Your task to perform on an android device: turn pop-ups off in chrome Image 0: 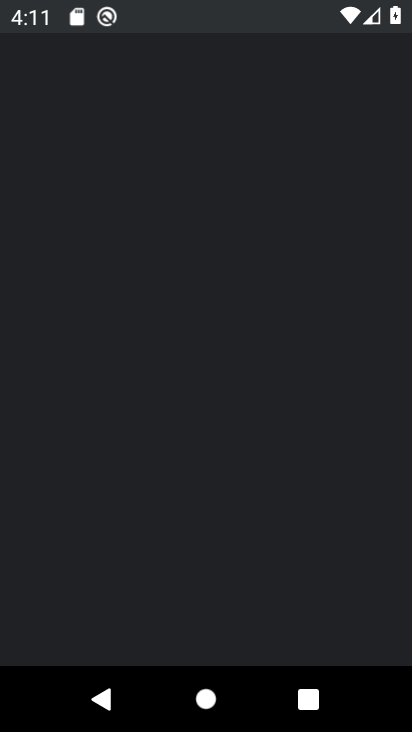
Step 0: press home button
Your task to perform on an android device: turn pop-ups off in chrome Image 1: 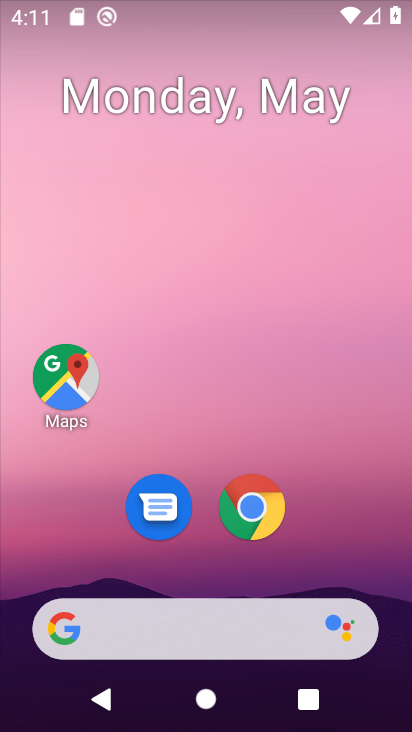
Step 1: drag from (397, 673) to (257, 19)
Your task to perform on an android device: turn pop-ups off in chrome Image 2: 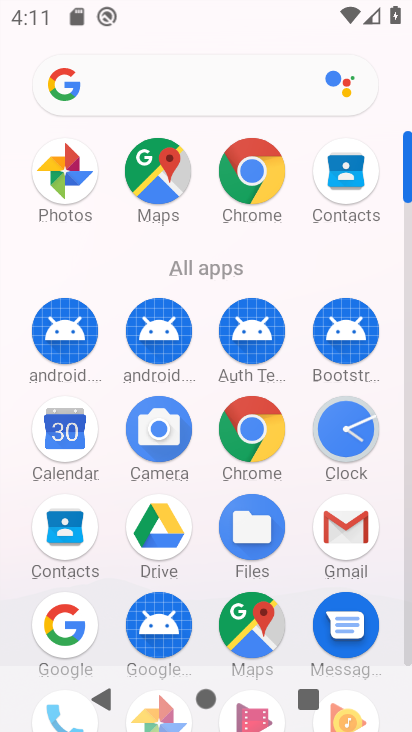
Step 2: click (254, 197)
Your task to perform on an android device: turn pop-ups off in chrome Image 3: 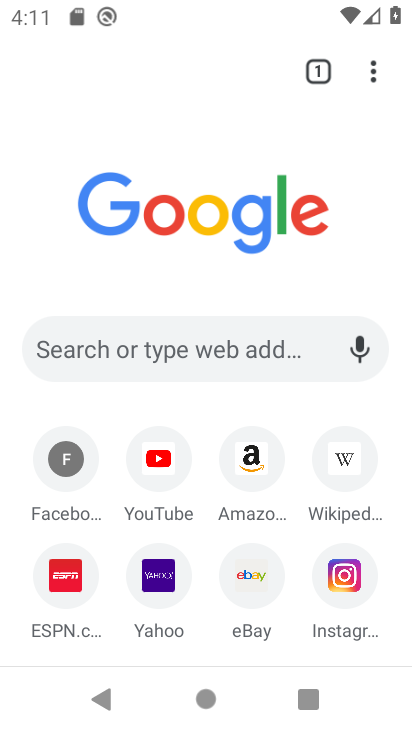
Step 3: drag from (386, 69) to (208, 488)
Your task to perform on an android device: turn pop-ups off in chrome Image 4: 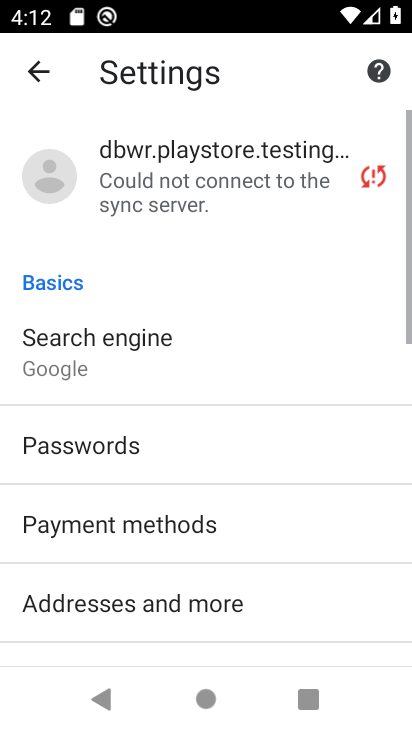
Step 4: drag from (214, 556) to (197, 157)
Your task to perform on an android device: turn pop-ups off in chrome Image 5: 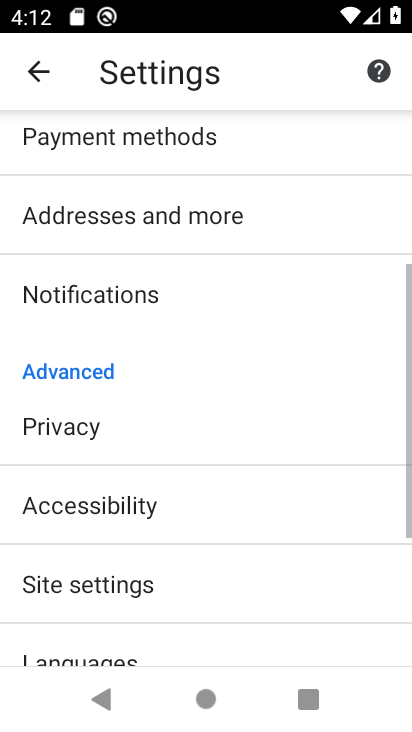
Step 5: drag from (216, 505) to (196, 272)
Your task to perform on an android device: turn pop-ups off in chrome Image 6: 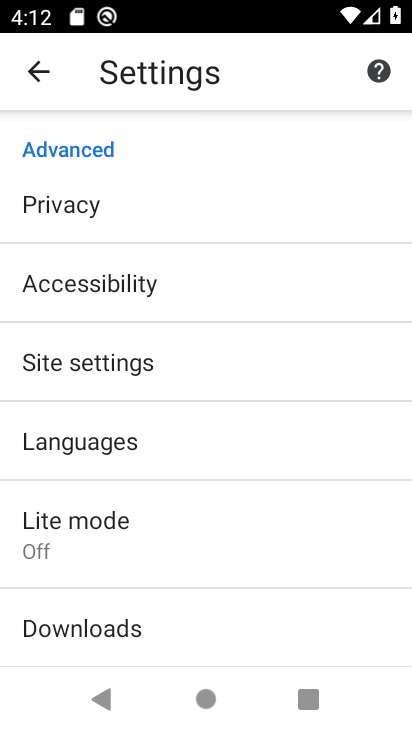
Step 6: click (162, 353)
Your task to perform on an android device: turn pop-ups off in chrome Image 7: 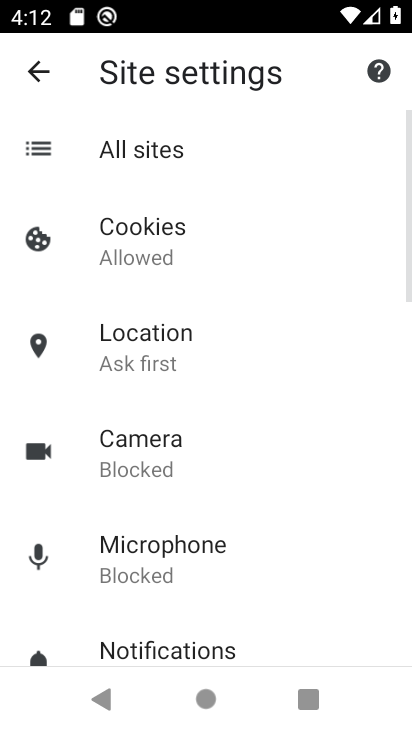
Step 7: drag from (144, 515) to (184, 7)
Your task to perform on an android device: turn pop-ups off in chrome Image 8: 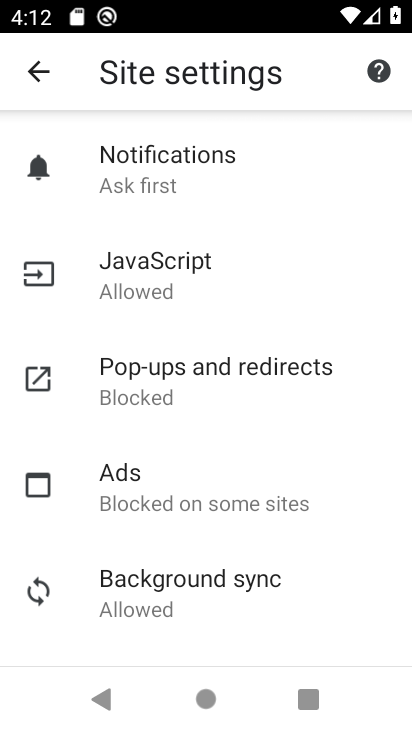
Step 8: click (181, 385)
Your task to perform on an android device: turn pop-ups off in chrome Image 9: 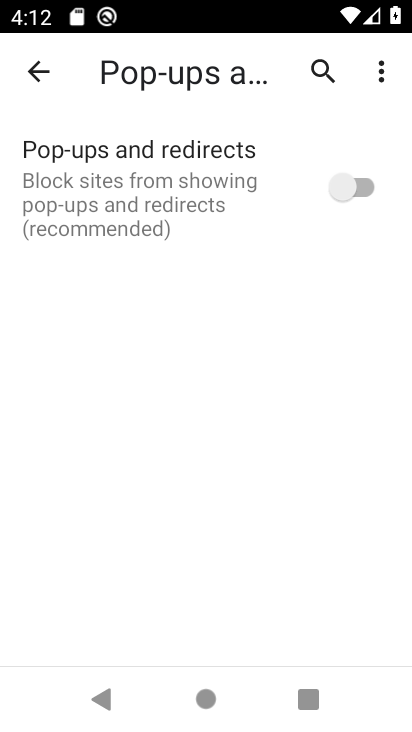
Step 9: click (261, 177)
Your task to perform on an android device: turn pop-ups off in chrome Image 10: 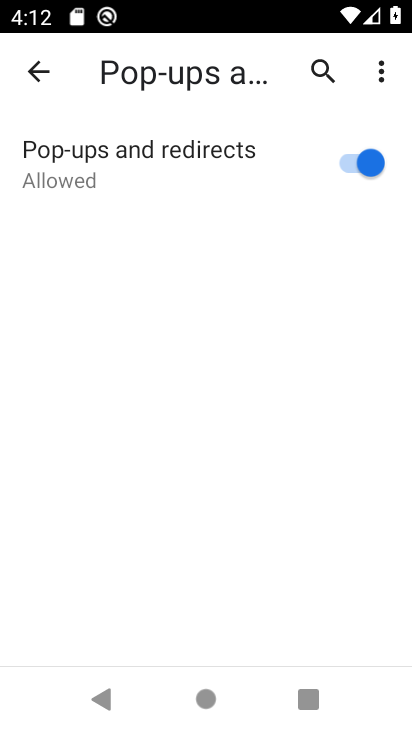
Step 10: click (261, 177)
Your task to perform on an android device: turn pop-ups off in chrome Image 11: 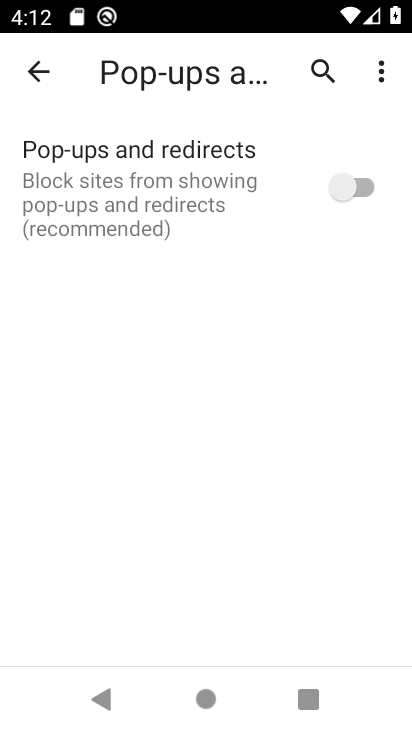
Step 11: task complete